Your task to perform on an android device: Open eBay Image 0: 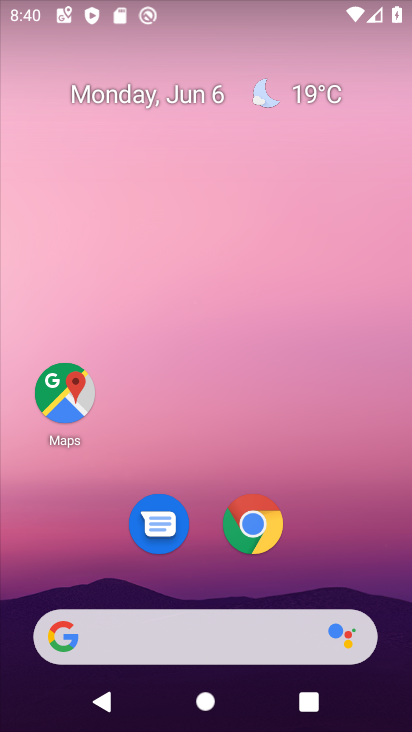
Step 0: drag from (198, 439) to (213, 0)
Your task to perform on an android device: Open eBay Image 1: 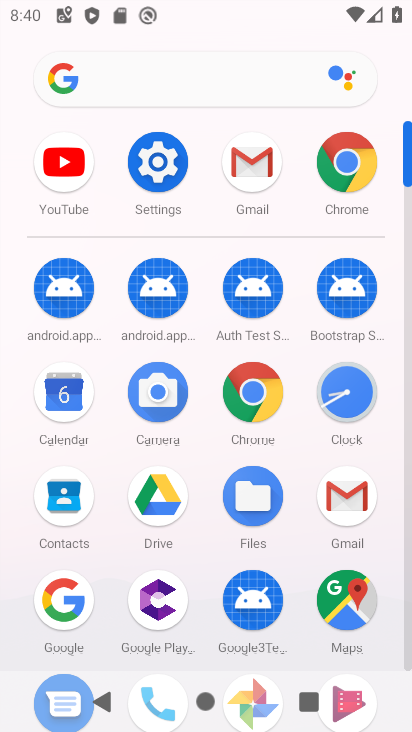
Step 1: press home button
Your task to perform on an android device: Open eBay Image 2: 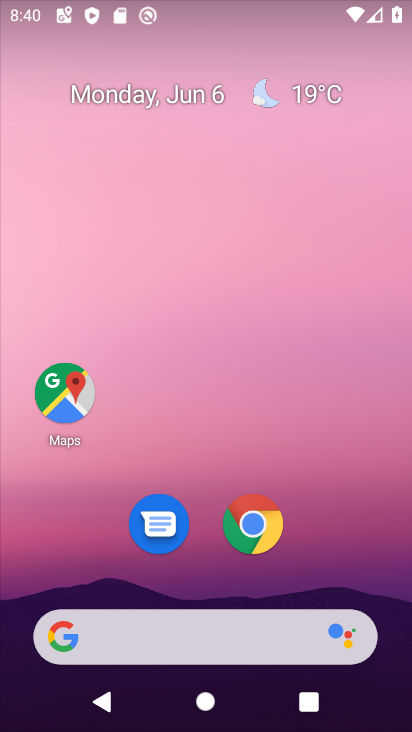
Step 2: click (206, 650)
Your task to perform on an android device: Open eBay Image 3: 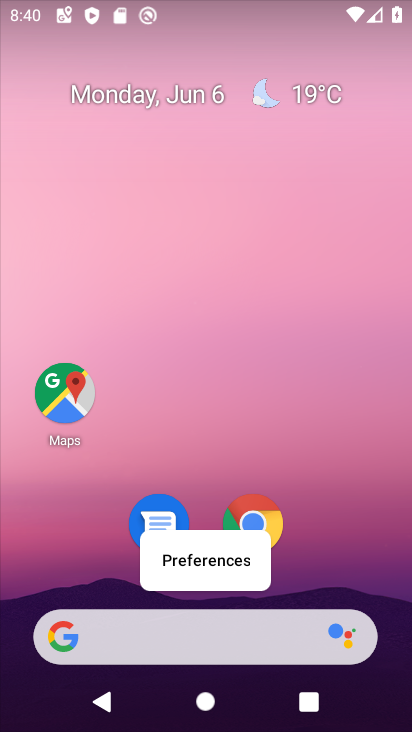
Step 3: click (208, 650)
Your task to perform on an android device: Open eBay Image 4: 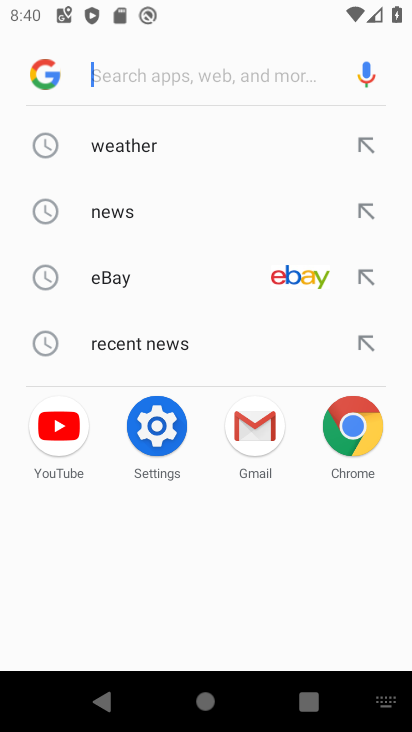
Step 4: click (118, 281)
Your task to perform on an android device: Open eBay Image 5: 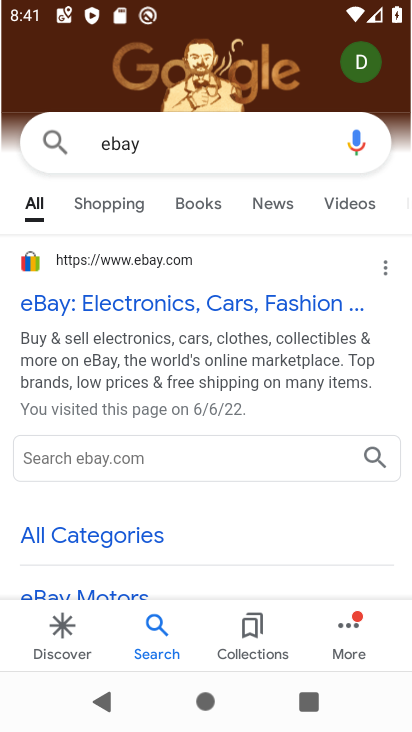
Step 5: click (60, 303)
Your task to perform on an android device: Open eBay Image 6: 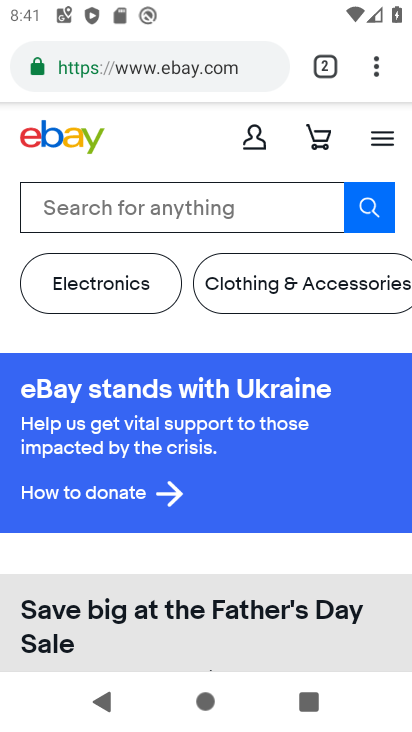
Step 6: task complete